Your task to perform on an android device: Open wifi settings Image 0: 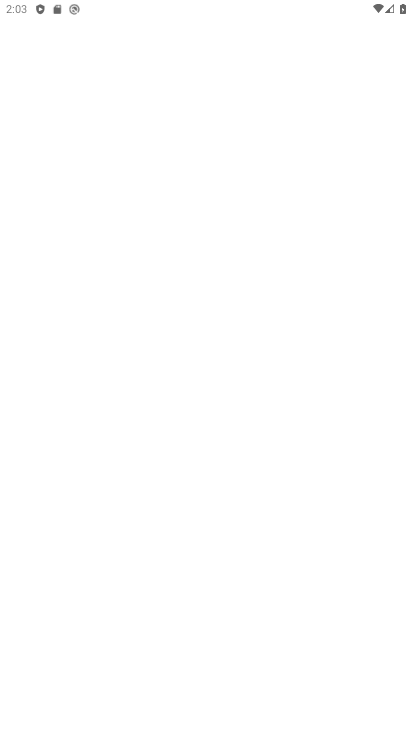
Step 0: press home button
Your task to perform on an android device: Open wifi settings Image 1: 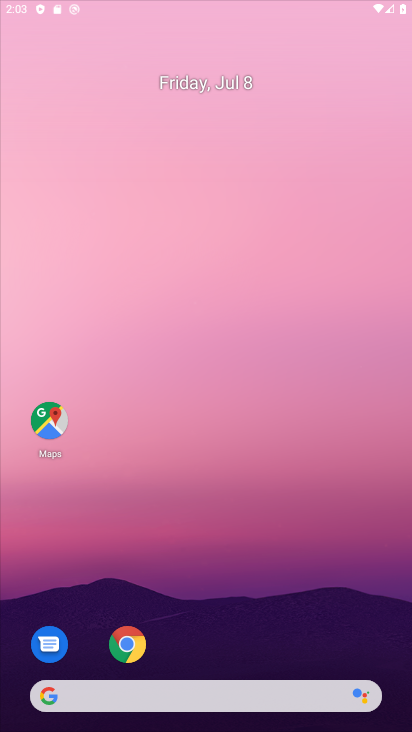
Step 1: drag from (217, 659) to (218, 354)
Your task to perform on an android device: Open wifi settings Image 2: 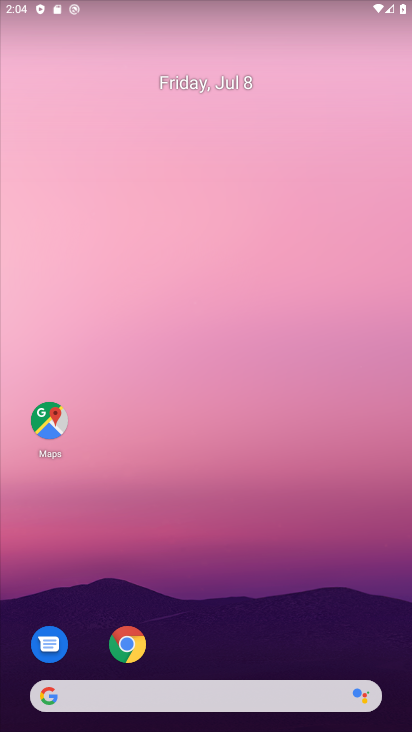
Step 2: drag from (248, 658) to (241, 299)
Your task to perform on an android device: Open wifi settings Image 3: 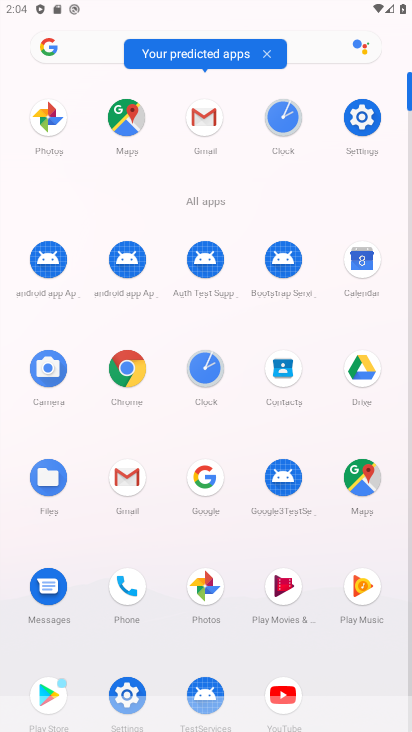
Step 3: click (346, 120)
Your task to perform on an android device: Open wifi settings Image 4: 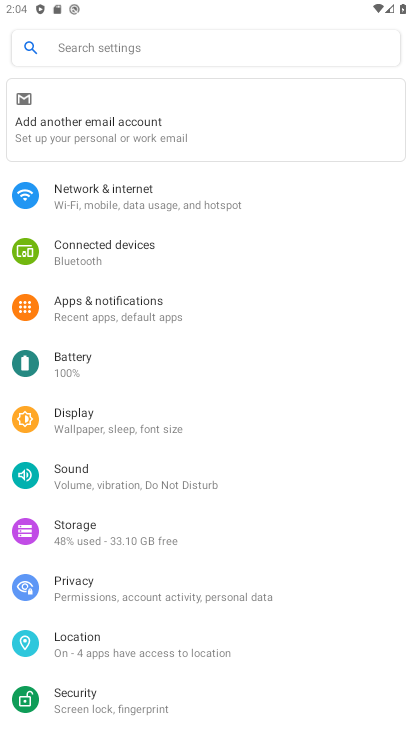
Step 4: click (160, 185)
Your task to perform on an android device: Open wifi settings Image 5: 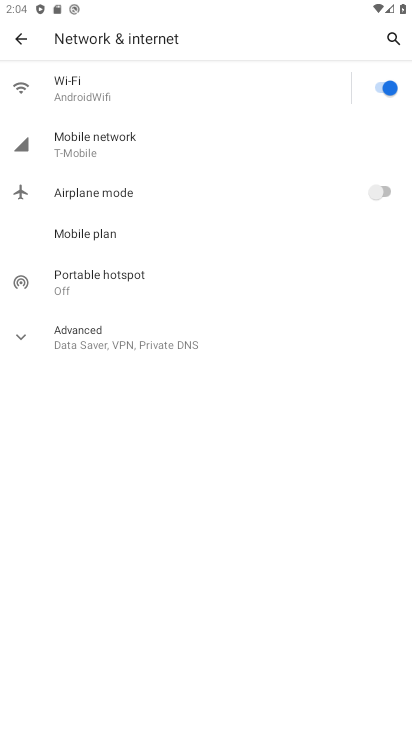
Step 5: click (86, 108)
Your task to perform on an android device: Open wifi settings Image 6: 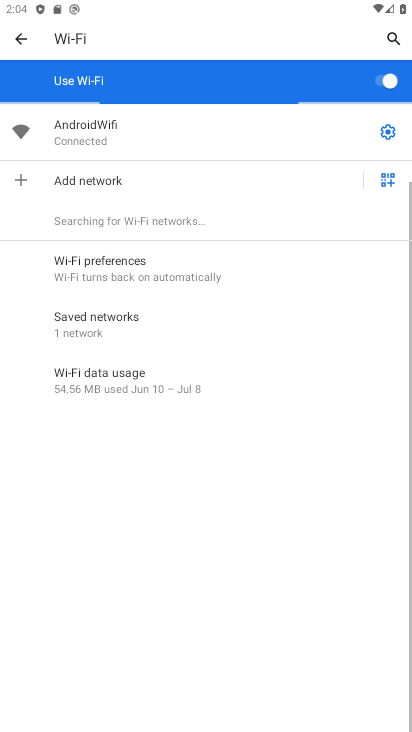
Step 6: task complete